Your task to perform on an android device: Open Youtube and go to the subscriptions tab Image 0: 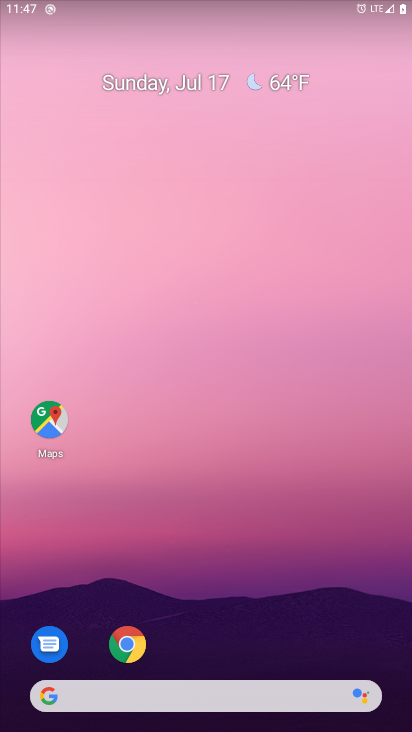
Step 0: press home button
Your task to perform on an android device: Open Youtube and go to the subscriptions tab Image 1: 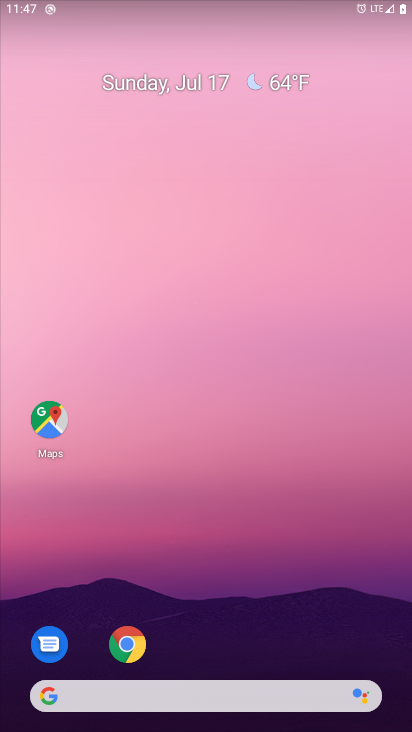
Step 1: drag from (242, 585) to (251, 177)
Your task to perform on an android device: Open Youtube and go to the subscriptions tab Image 2: 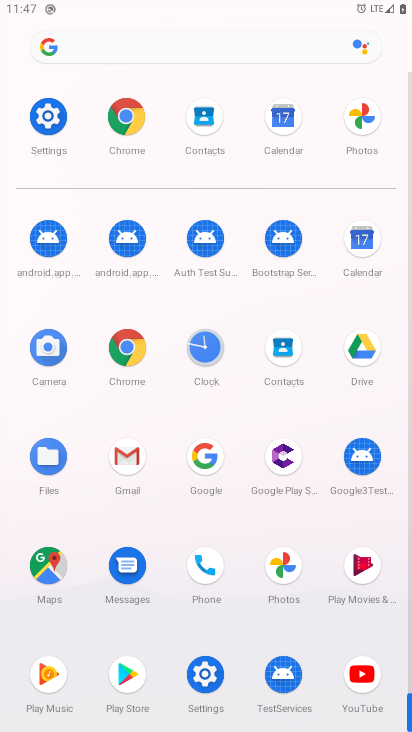
Step 2: click (357, 680)
Your task to perform on an android device: Open Youtube and go to the subscriptions tab Image 3: 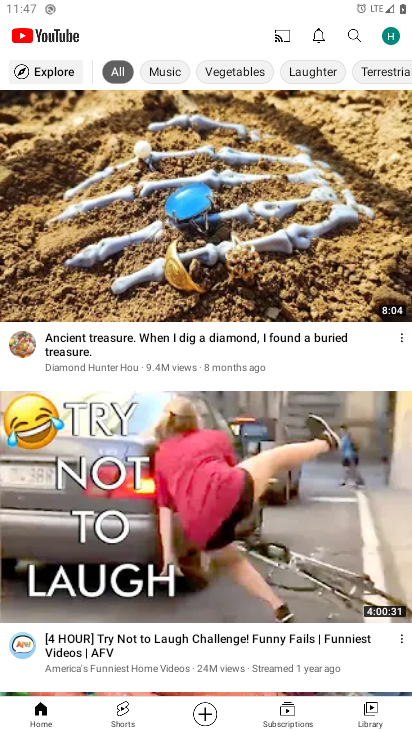
Step 3: click (270, 706)
Your task to perform on an android device: Open Youtube and go to the subscriptions tab Image 4: 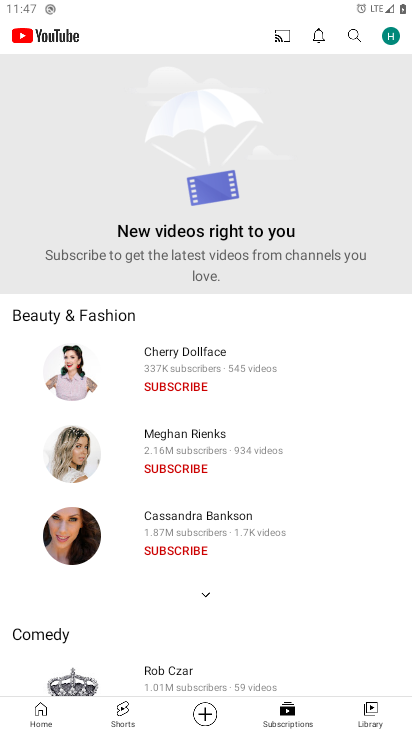
Step 4: task complete